Your task to perform on an android device: show emergency info Image 0: 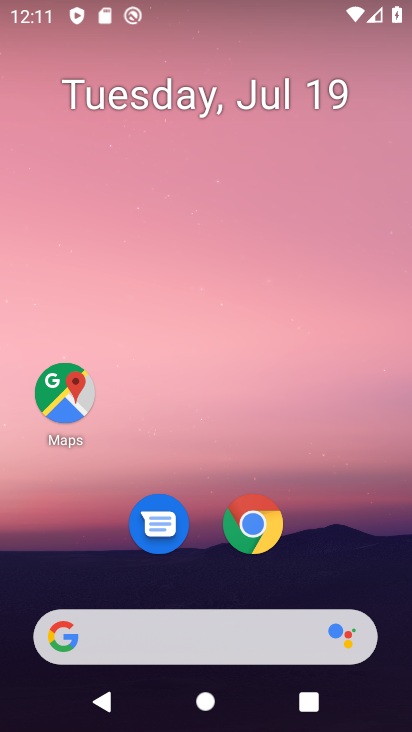
Step 0: press home button
Your task to perform on an android device: show emergency info Image 1: 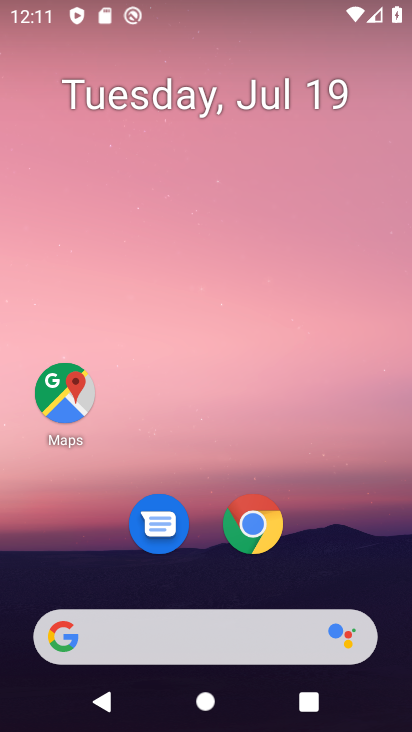
Step 1: drag from (181, 591) to (239, 62)
Your task to perform on an android device: show emergency info Image 2: 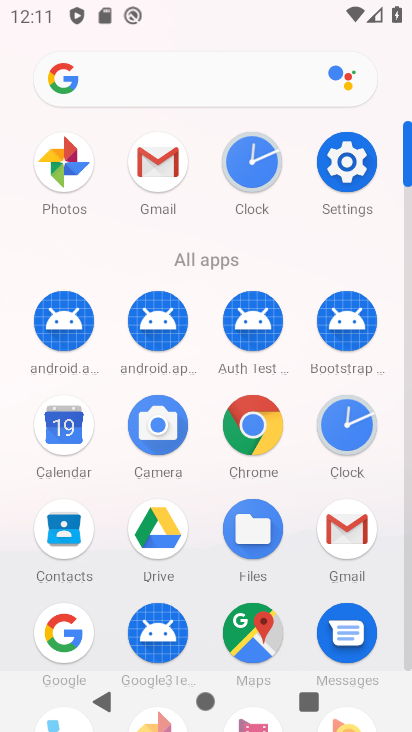
Step 2: click (339, 145)
Your task to perform on an android device: show emergency info Image 3: 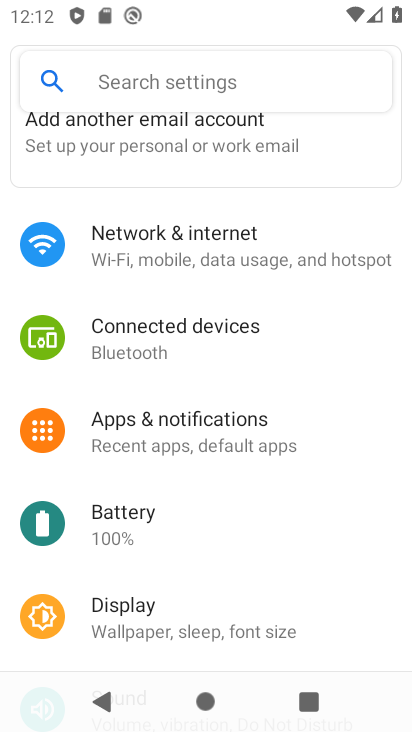
Step 3: drag from (228, 616) to (359, 76)
Your task to perform on an android device: show emergency info Image 4: 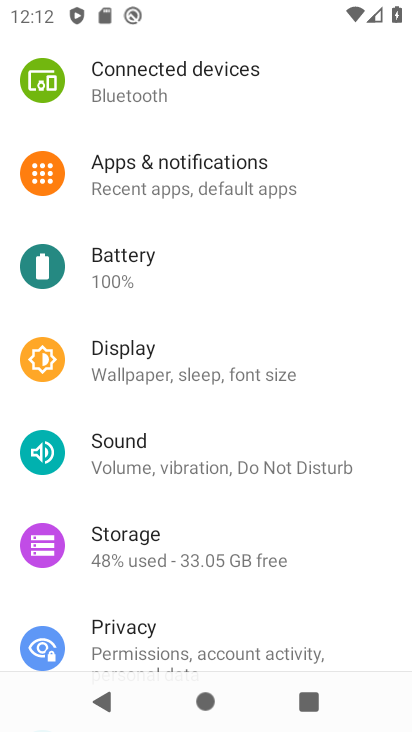
Step 4: drag from (289, 224) to (367, 57)
Your task to perform on an android device: show emergency info Image 5: 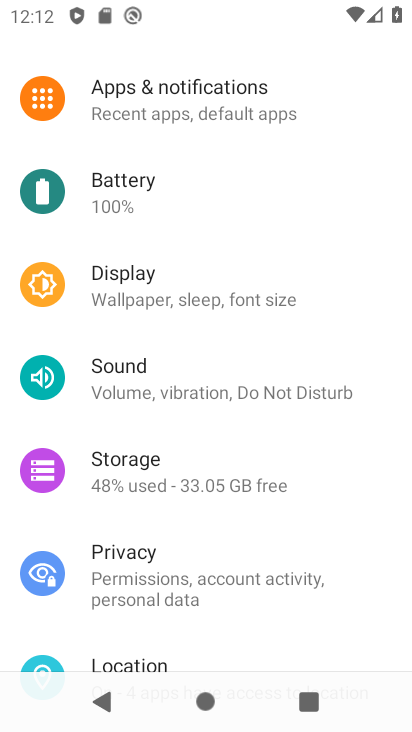
Step 5: drag from (253, 484) to (386, 50)
Your task to perform on an android device: show emergency info Image 6: 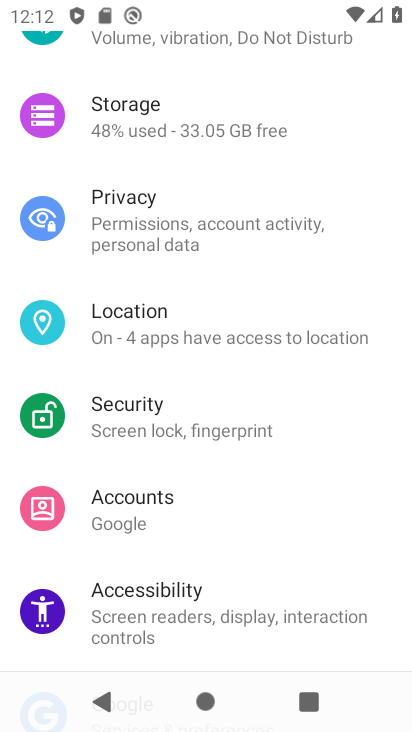
Step 6: drag from (241, 558) to (360, 20)
Your task to perform on an android device: show emergency info Image 7: 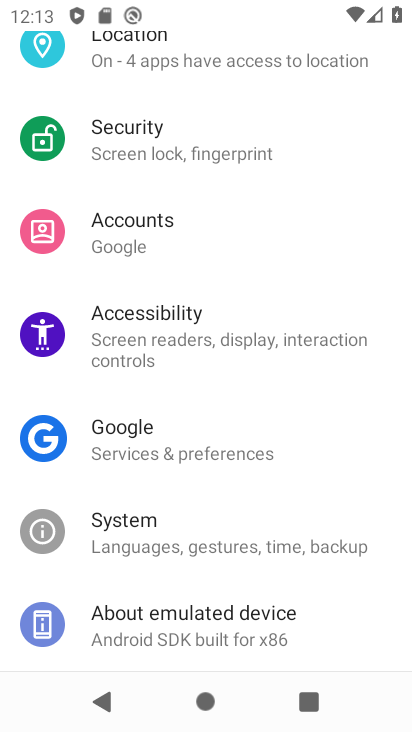
Step 7: click (183, 631)
Your task to perform on an android device: show emergency info Image 8: 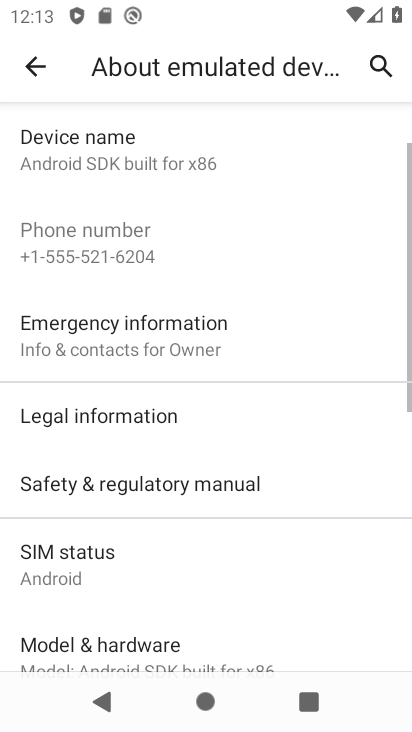
Step 8: click (169, 341)
Your task to perform on an android device: show emergency info Image 9: 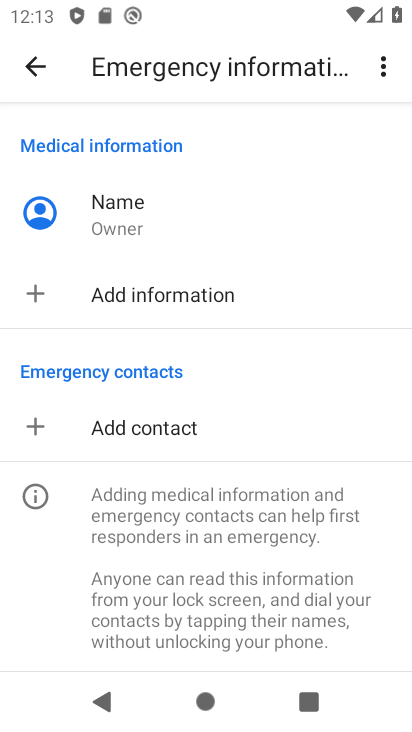
Step 9: task complete